Your task to perform on an android device: Clear all items from cart on amazon.com. Add corsair k70 to the cart on amazon.com Image 0: 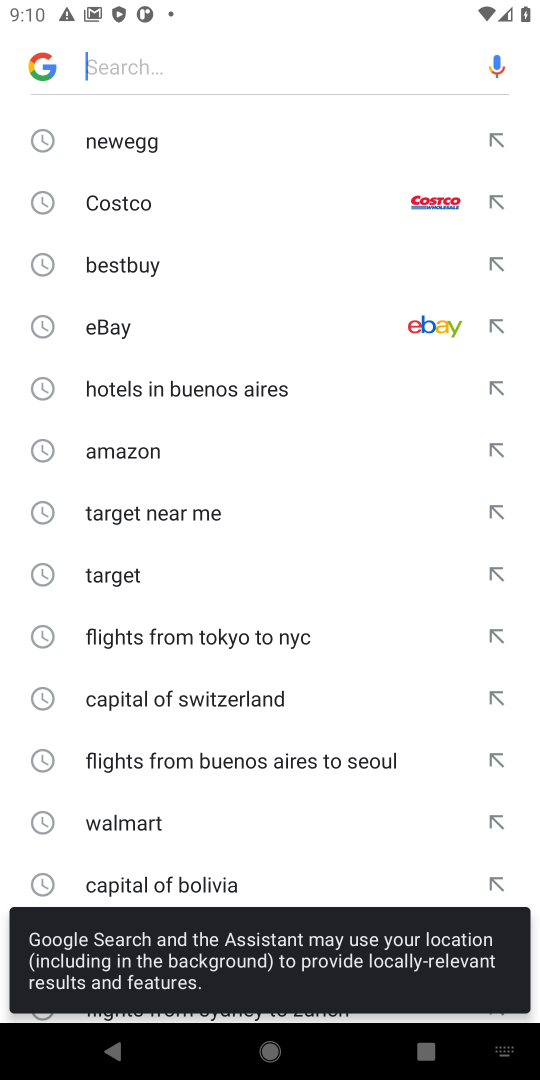
Step 0: press home button
Your task to perform on an android device: Clear all items from cart on amazon.com. Add corsair k70 to the cart on amazon.com Image 1: 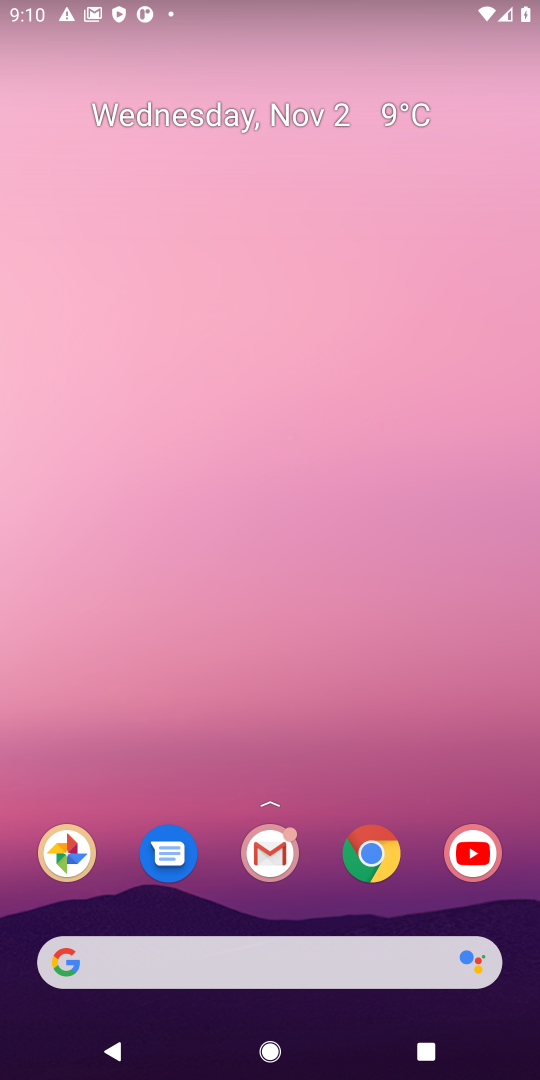
Step 1: click (371, 859)
Your task to perform on an android device: Clear all items from cart on amazon.com. Add corsair k70 to the cart on amazon.com Image 2: 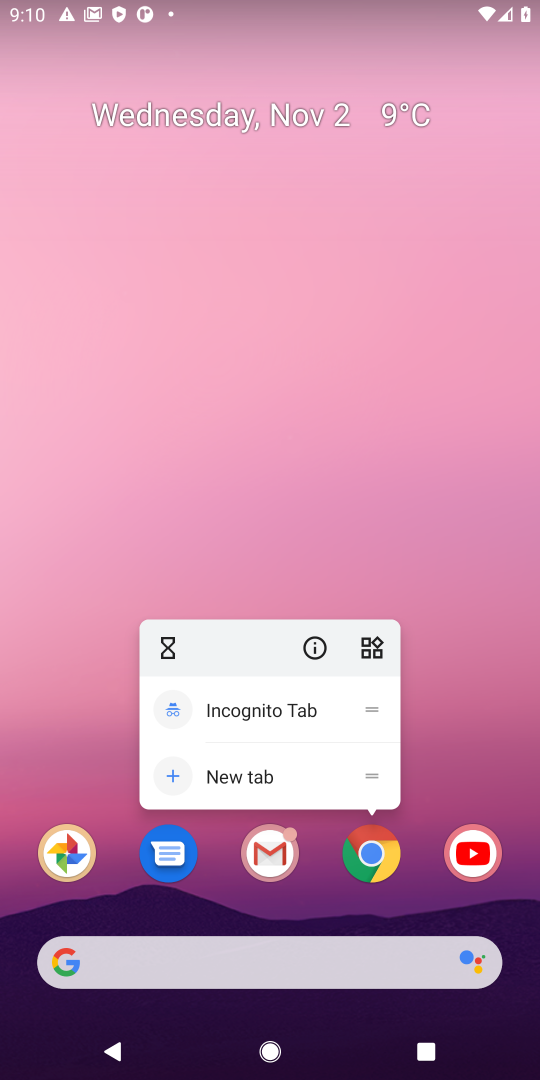
Step 2: click (371, 859)
Your task to perform on an android device: Clear all items from cart on amazon.com. Add corsair k70 to the cart on amazon.com Image 3: 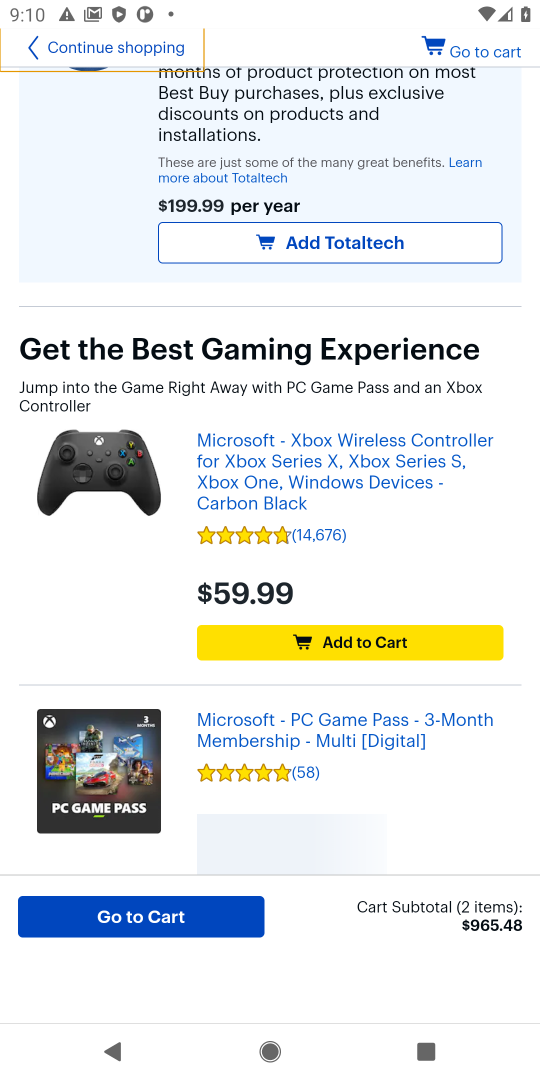
Step 3: click (203, 69)
Your task to perform on an android device: Clear all items from cart on amazon.com. Add corsair k70 to the cart on amazon.com Image 4: 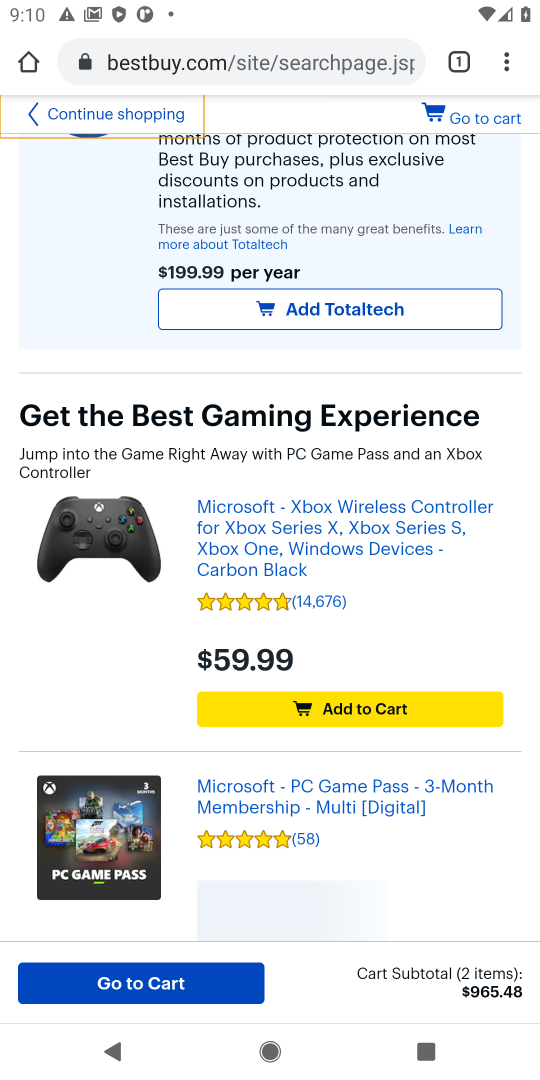
Step 4: drag from (375, 161) to (428, 799)
Your task to perform on an android device: Clear all items from cart on amazon.com. Add corsair k70 to the cart on amazon.com Image 5: 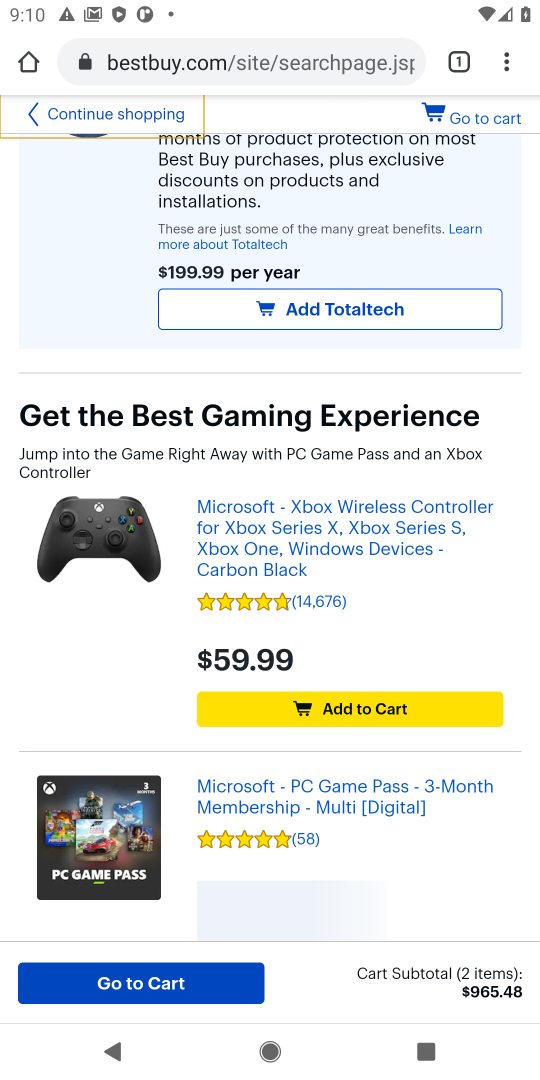
Step 5: click (308, 62)
Your task to perform on an android device: Clear all items from cart on amazon.com. Add corsair k70 to the cart on amazon.com Image 6: 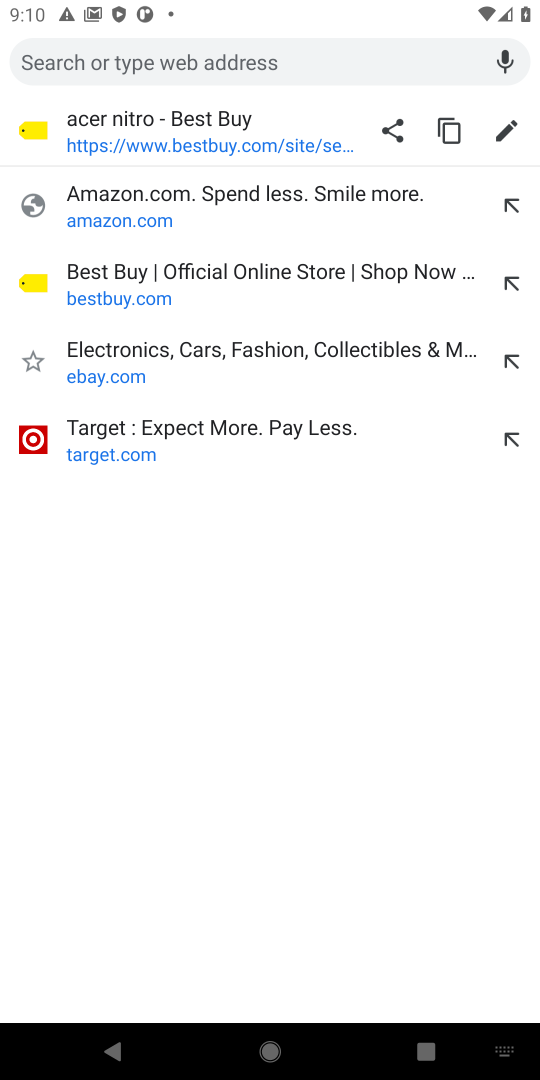
Step 6: click (88, 229)
Your task to perform on an android device: Clear all items from cart on amazon.com. Add corsair k70 to the cart on amazon.com Image 7: 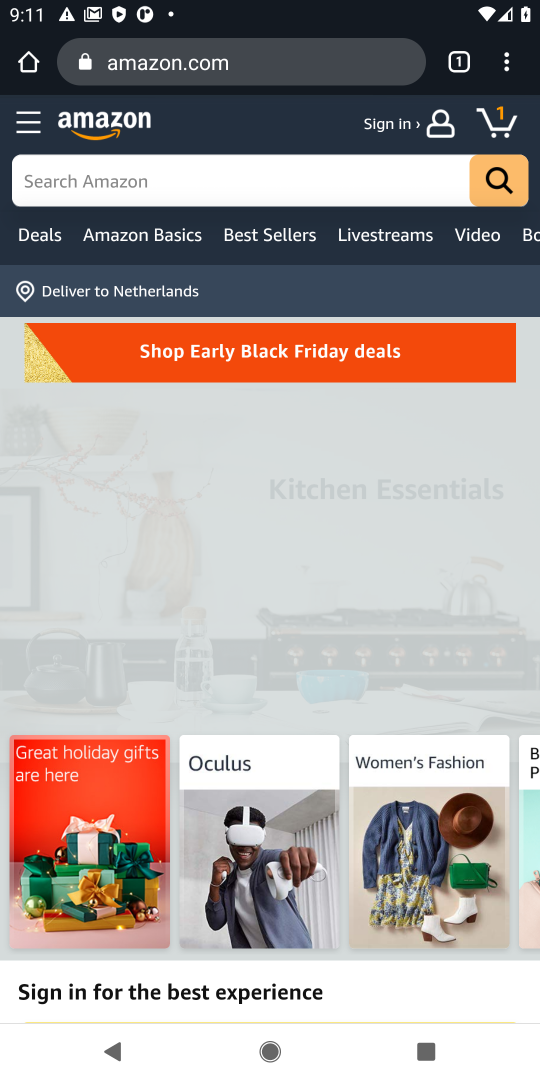
Step 7: click (137, 178)
Your task to perform on an android device: Clear all items from cart on amazon.com. Add corsair k70 to the cart on amazon.com Image 8: 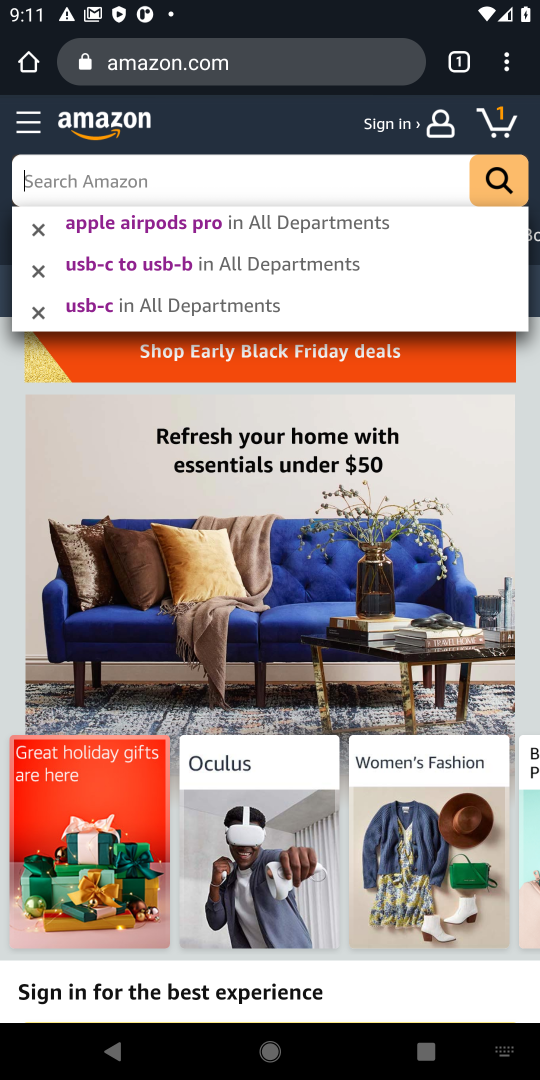
Step 8: type " corsair k70"
Your task to perform on an android device: Clear all items from cart on amazon.com. Add corsair k70 to the cart on amazon.com Image 9: 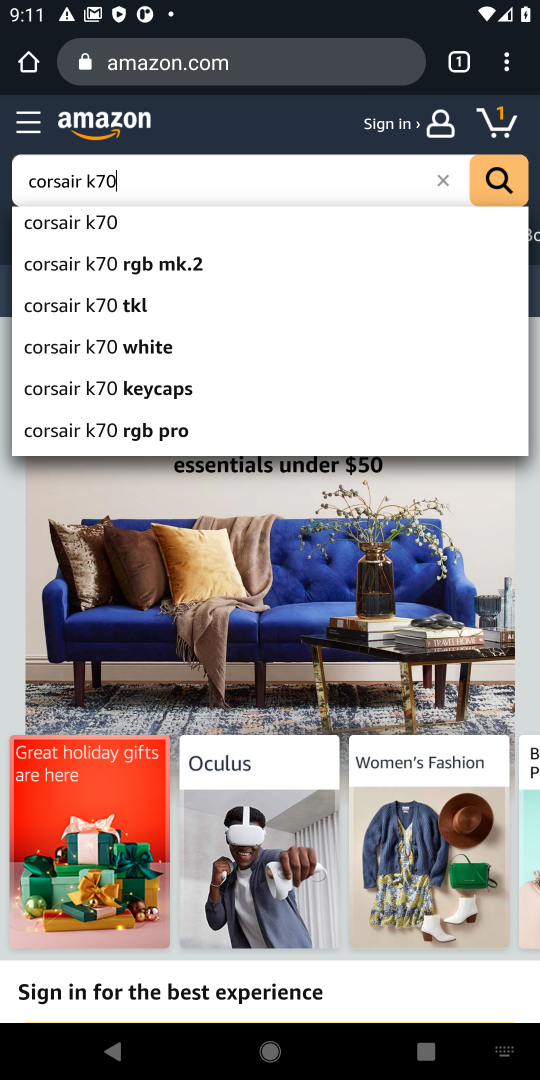
Step 9: press enter
Your task to perform on an android device: Clear all items from cart on amazon.com. Add corsair k70 to the cart on amazon.com Image 10: 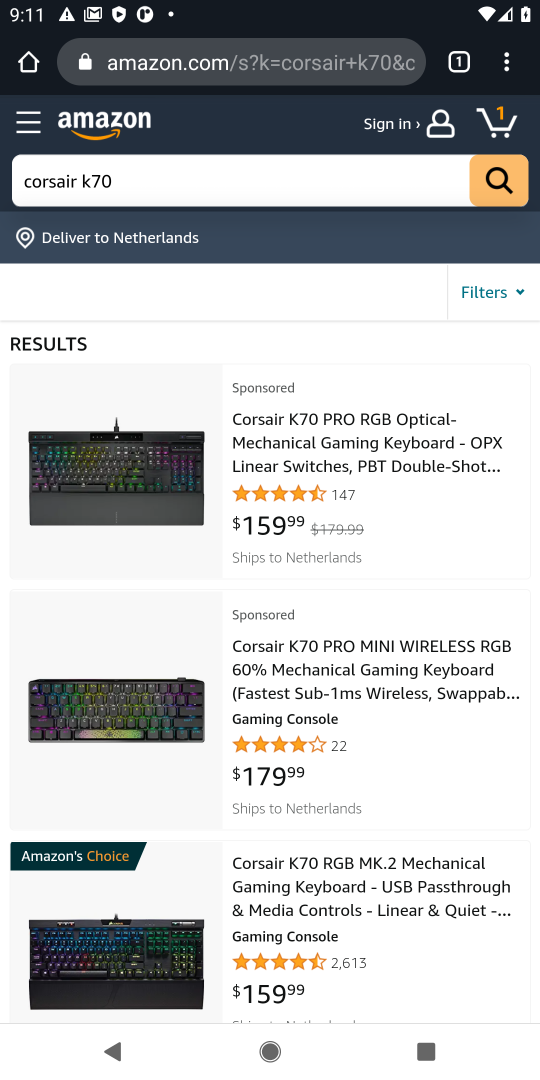
Step 10: click (351, 442)
Your task to perform on an android device: Clear all items from cart on amazon.com. Add corsair k70 to the cart on amazon.com Image 11: 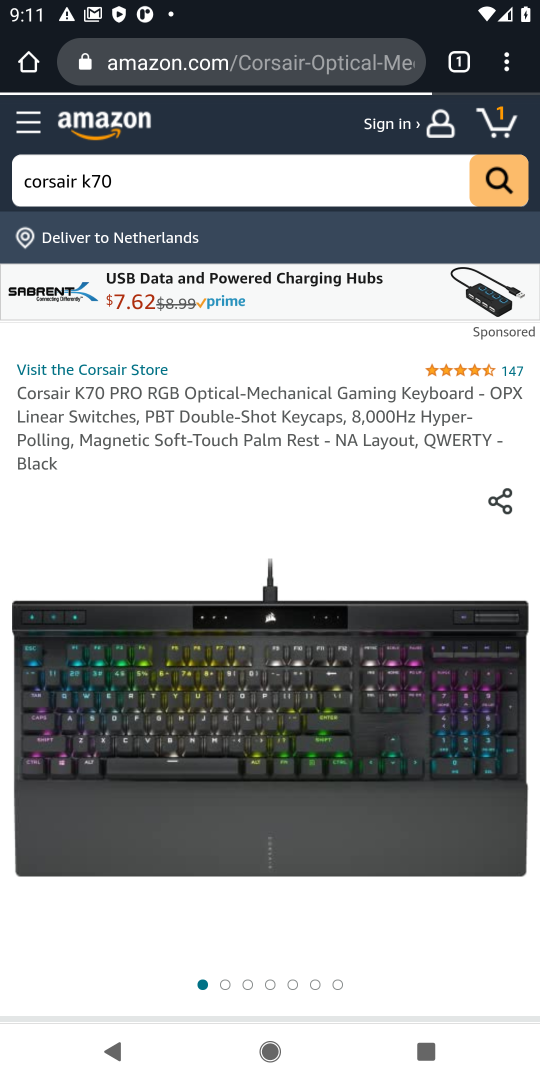
Step 11: drag from (297, 892) to (429, 72)
Your task to perform on an android device: Clear all items from cart on amazon.com. Add corsair k70 to the cart on amazon.com Image 12: 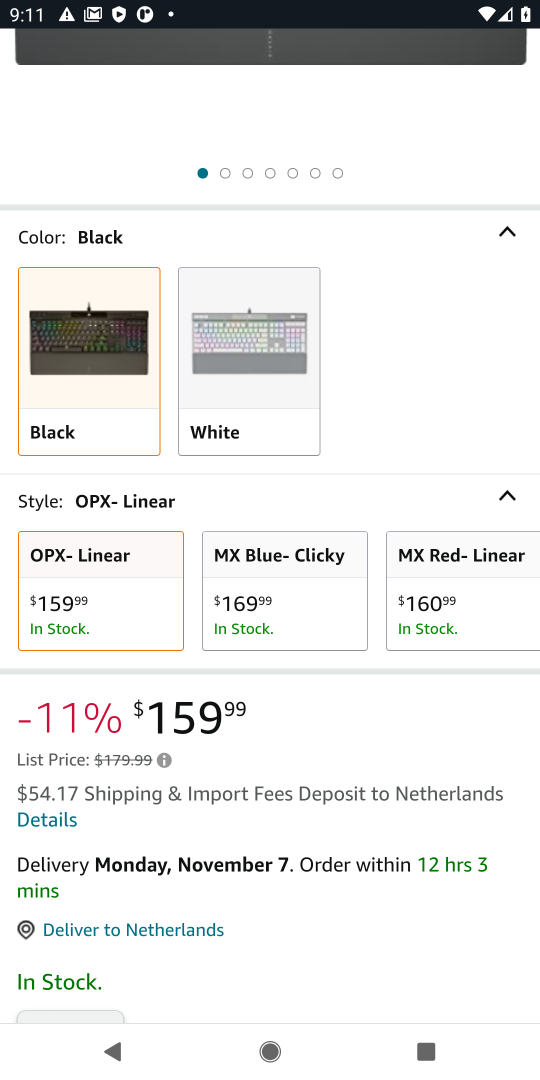
Step 12: drag from (384, 979) to (382, 119)
Your task to perform on an android device: Clear all items from cart on amazon.com. Add corsair k70 to the cart on amazon.com Image 13: 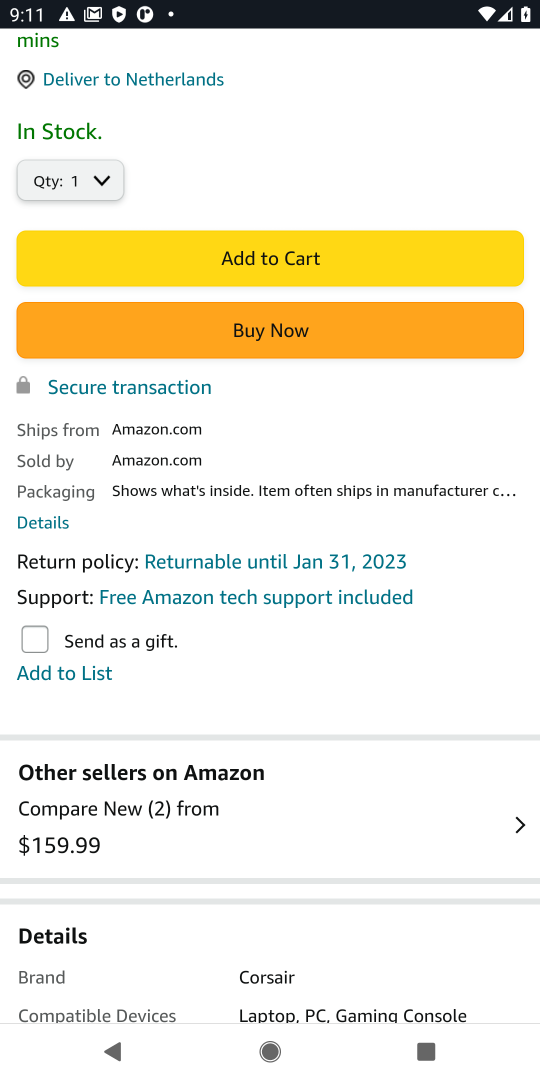
Step 13: click (285, 254)
Your task to perform on an android device: Clear all items from cart on amazon.com. Add corsair k70 to the cart on amazon.com Image 14: 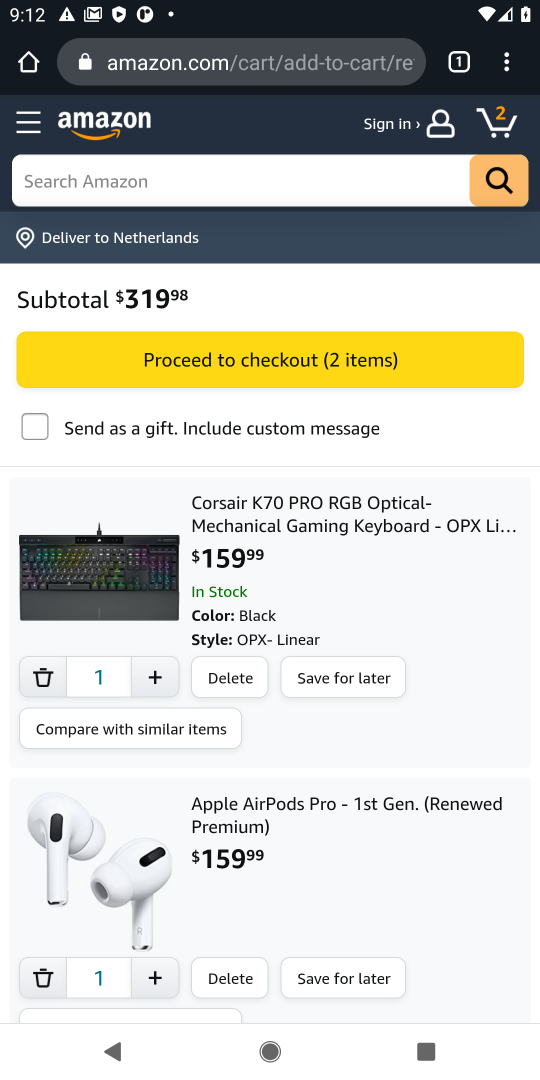
Step 14: task complete